Your task to perform on an android device: turn off airplane mode Image 0: 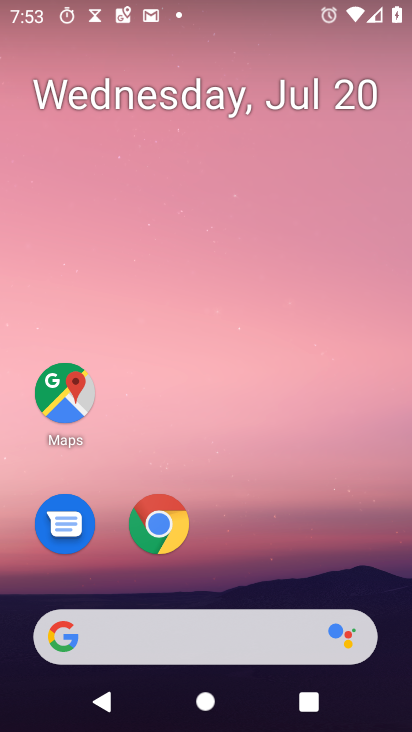
Step 0: drag from (255, 622) to (340, 36)
Your task to perform on an android device: turn off airplane mode Image 1: 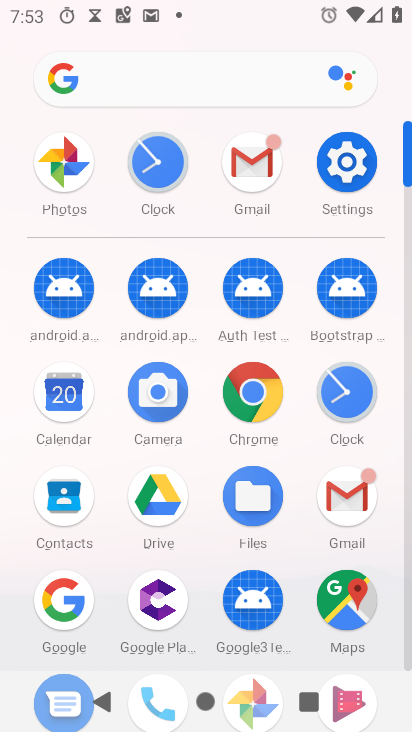
Step 1: click (366, 190)
Your task to perform on an android device: turn off airplane mode Image 2: 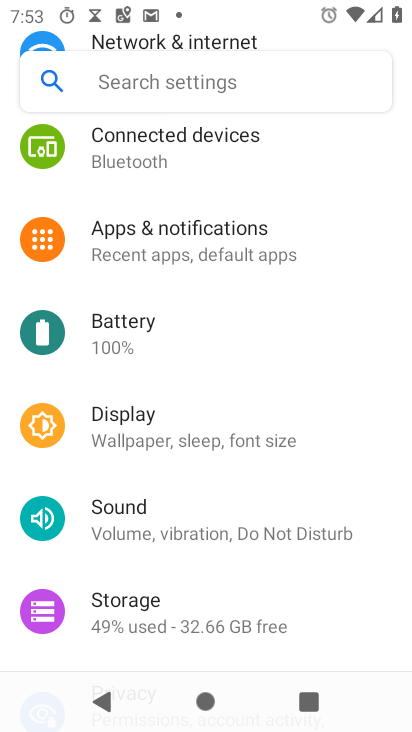
Step 2: drag from (350, 109) to (149, 545)
Your task to perform on an android device: turn off airplane mode Image 3: 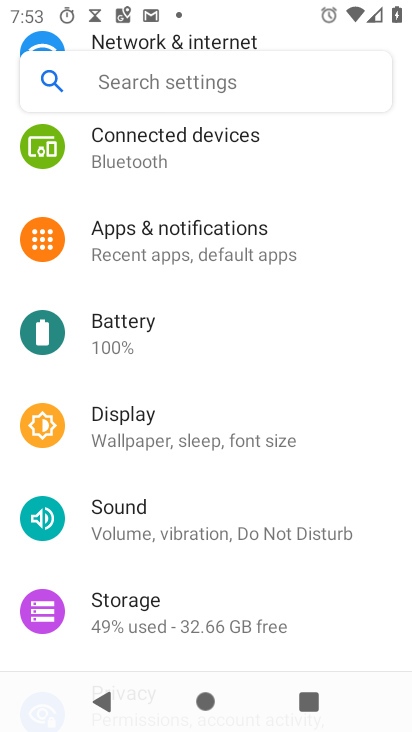
Step 3: drag from (302, 188) to (216, 315)
Your task to perform on an android device: turn off airplane mode Image 4: 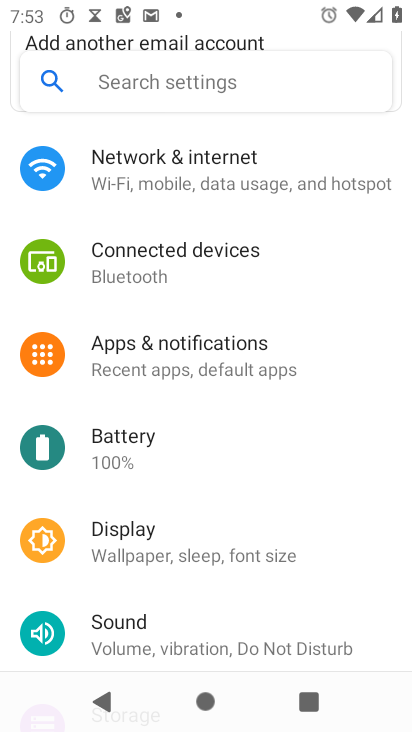
Step 4: click (205, 174)
Your task to perform on an android device: turn off airplane mode Image 5: 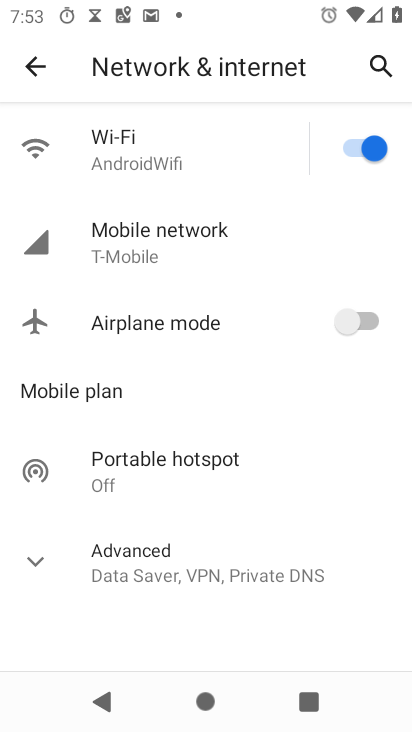
Step 5: click (163, 160)
Your task to perform on an android device: turn off airplane mode Image 6: 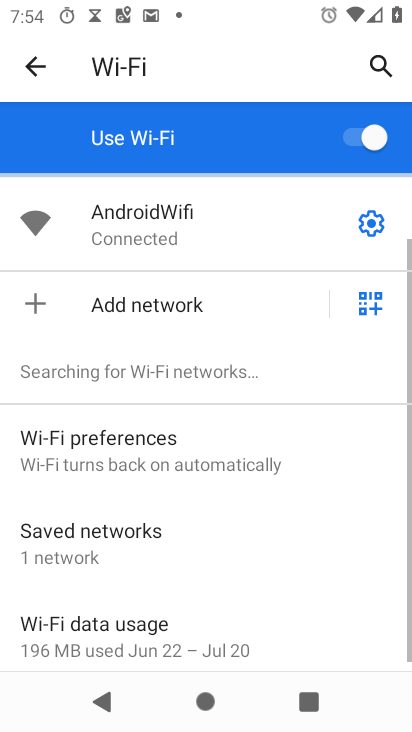
Step 6: click (28, 62)
Your task to perform on an android device: turn off airplane mode Image 7: 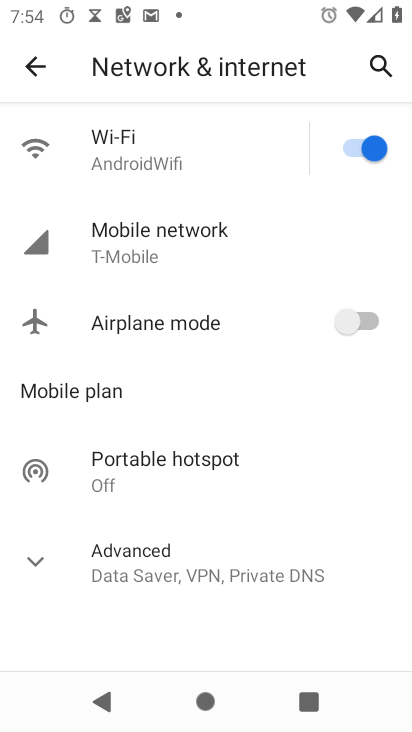
Step 7: task complete